Your task to perform on an android device: check data usage Image 0: 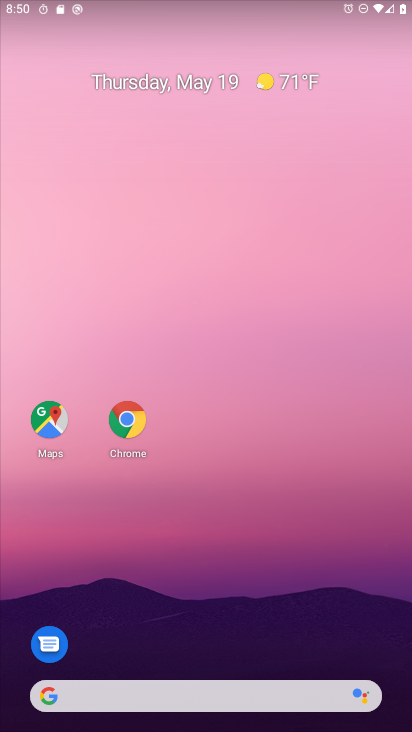
Step 0: drag from (187, 666) to (237, 218)
Your task to perform on an android device: check data usage Image 1: 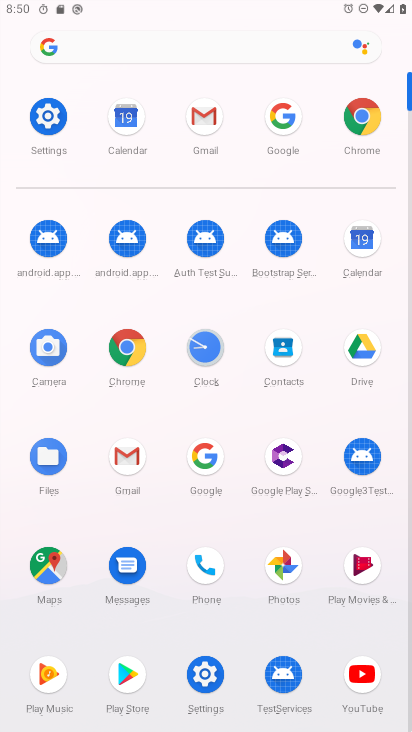
Step 1: click (55, 122)
Your task to perform on an android device: check data usage Image 2: 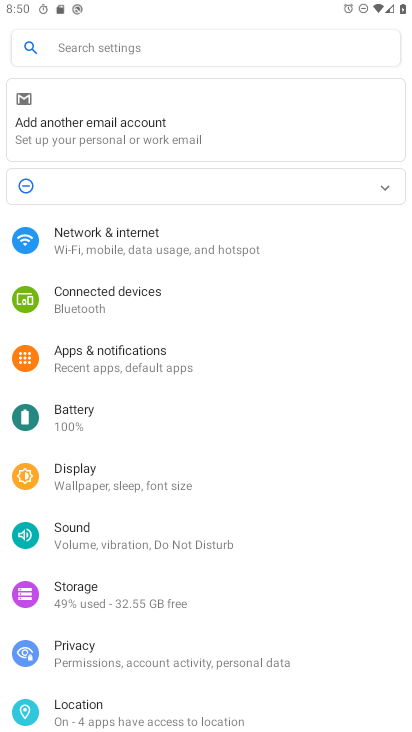
Step 2: click (93, 248)
Your task to perform on an android device: check data usage Image 3: 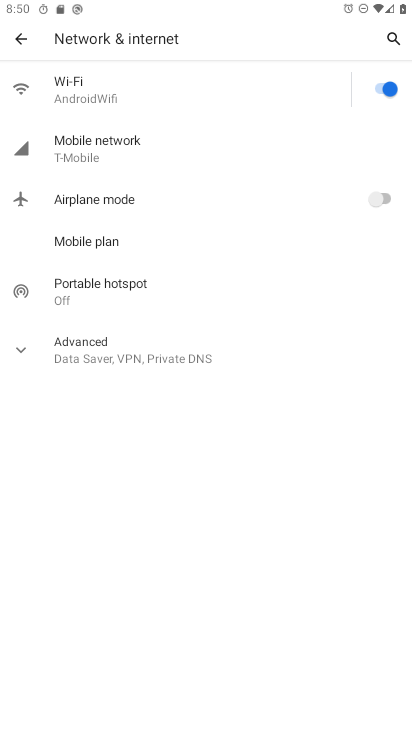
Step 3: click (101, 357)
Your task to perform on an android device: check data usage Image 4: 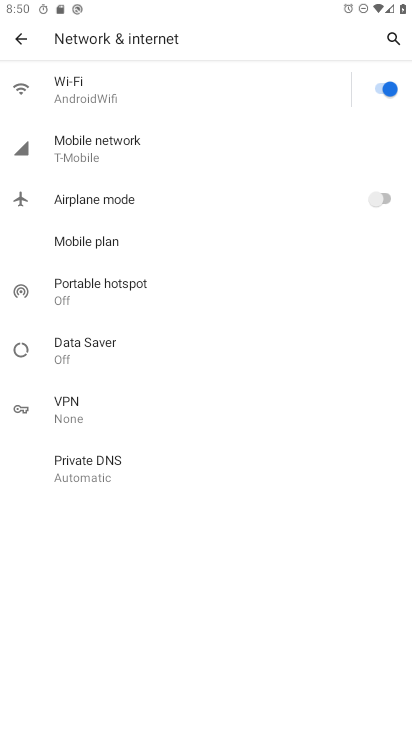
Step 4: click (123, 146)
Your task to perform on an android device: check data usage Image 5: 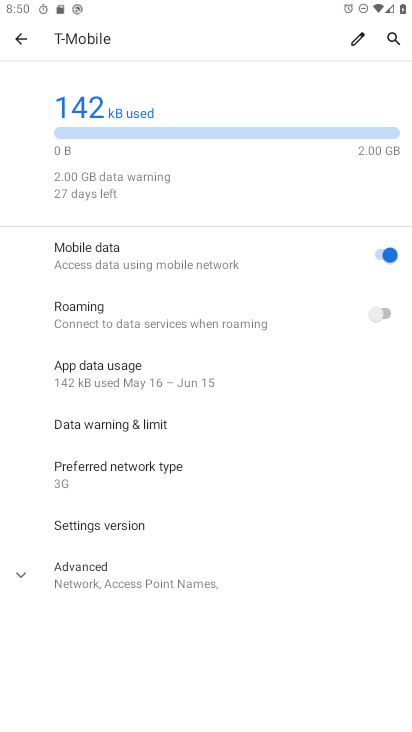
Step 5: task complete